Your task to perform on an android device: add a contact Image 0: 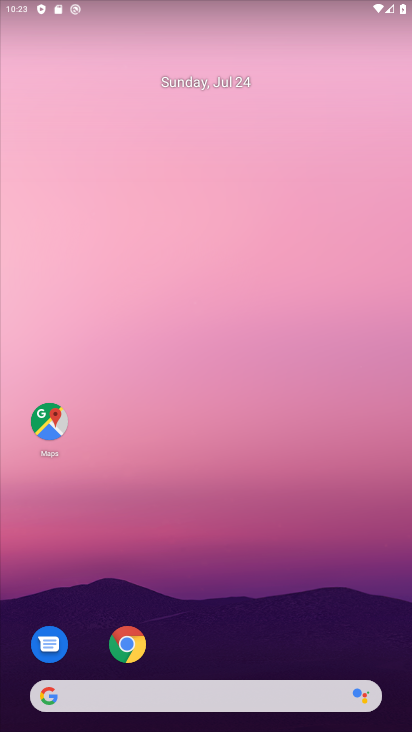
Step 0: drag from (236, 668) to (269, 15)
Your task to perform on an android device: add a contact Image 1: 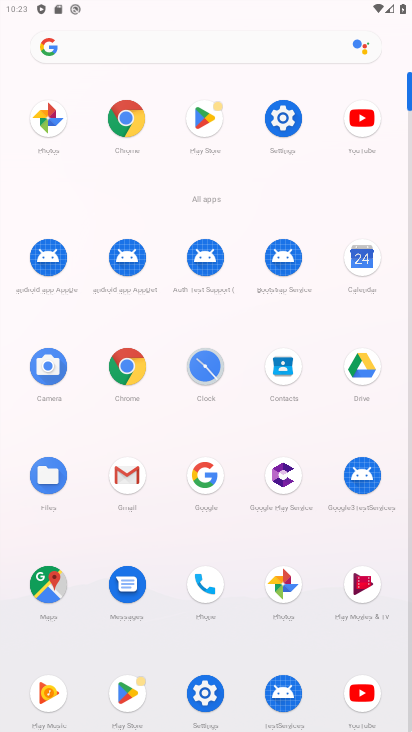
Step 1: click (276, 369)
Your task to perform on an android device: add a contact Image 2: 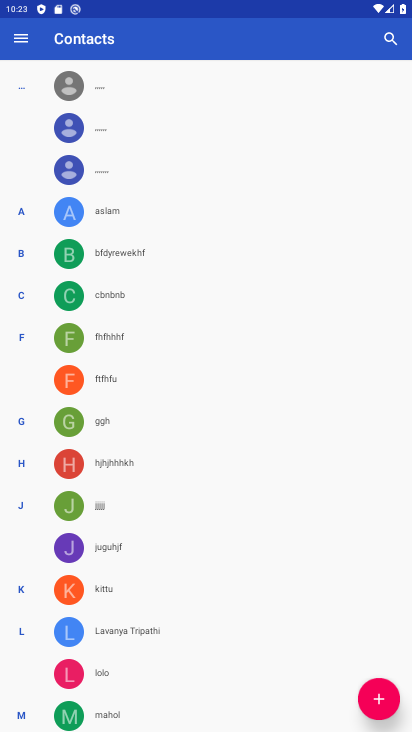
Step 2: click (380, 706)
Your task to perform on an android device: add a contact Image 3: 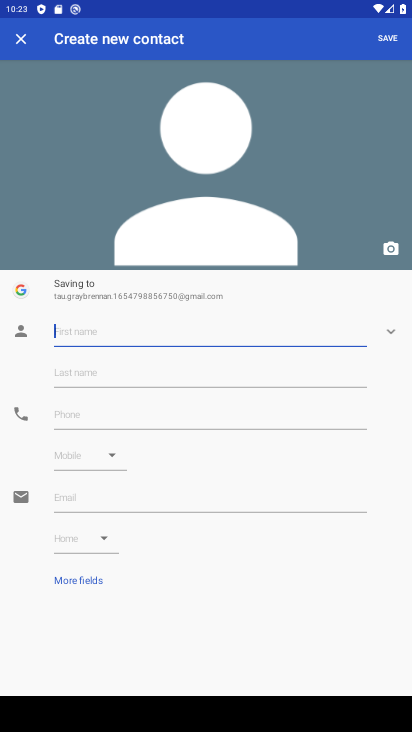
Step 3: click (81, 338)
Your task to perform on an android device: add a contact Image 4: 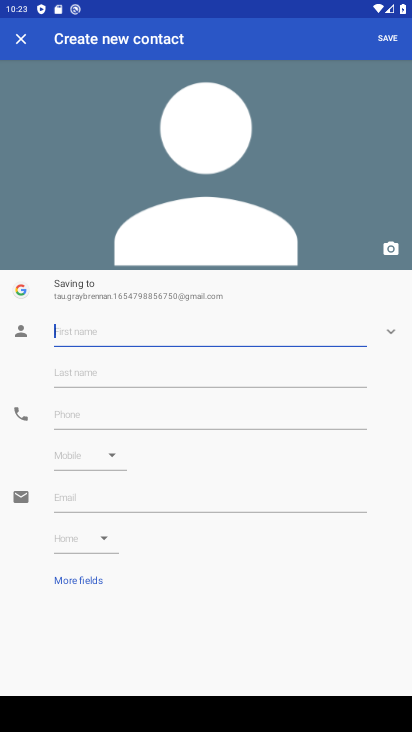
Step 4: type "mona"
Your task to perform on an android device: add a contact Image 5: 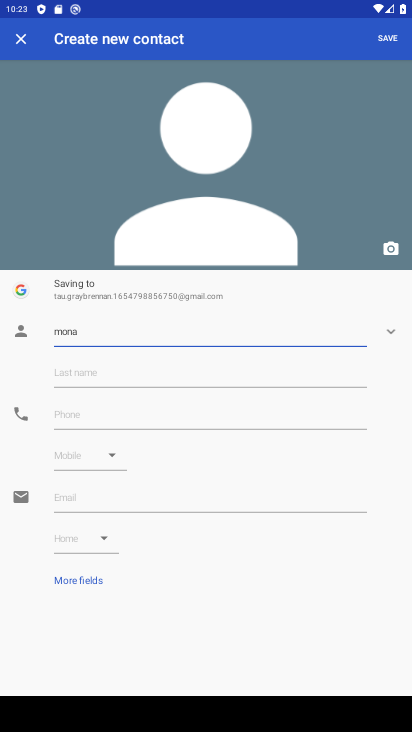
Step 5: click (126, 411)
Your task to perform on an android device: add a contact Image 6: 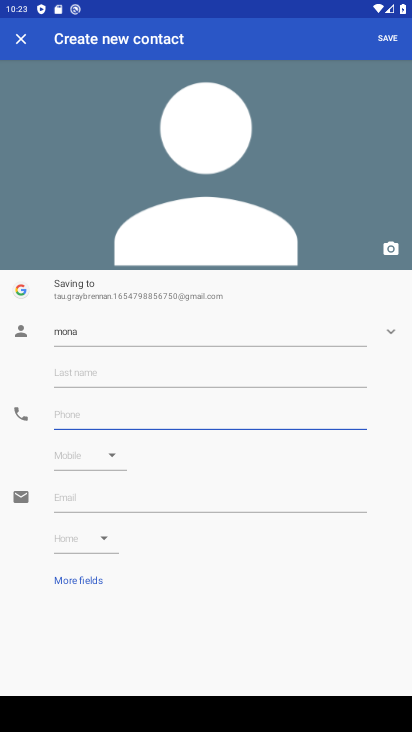
Step 6: type "543234567"
Your task to perform on an android device: add a contact Image 7: 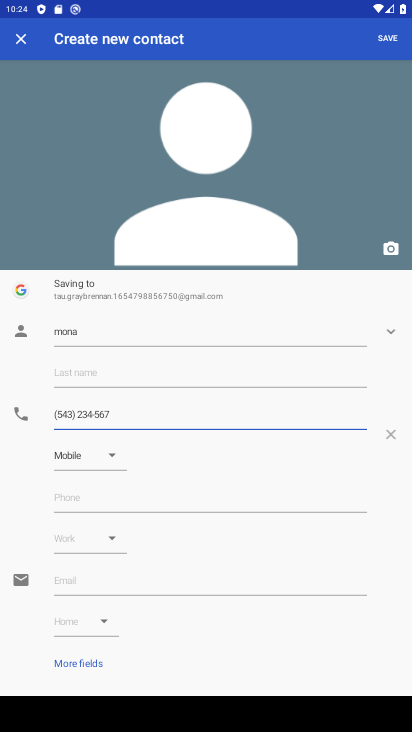
Step 7: click (395, 40)
Your task to perform on an android device: add a contact Image 8: 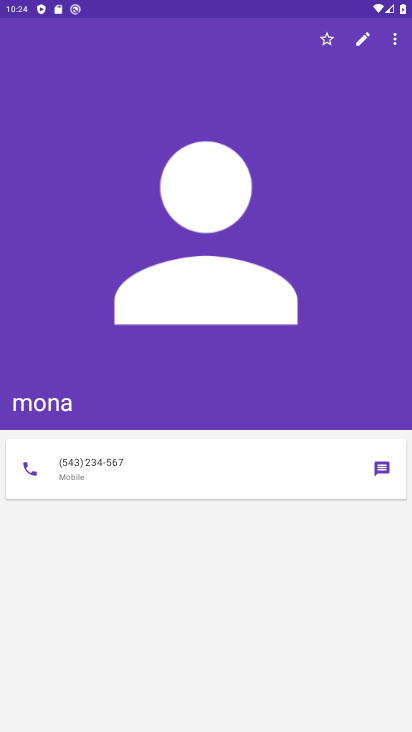
Step 8: task complete